Your task to perform on an android device: toggle notifications settings in the gmail app Image 0: 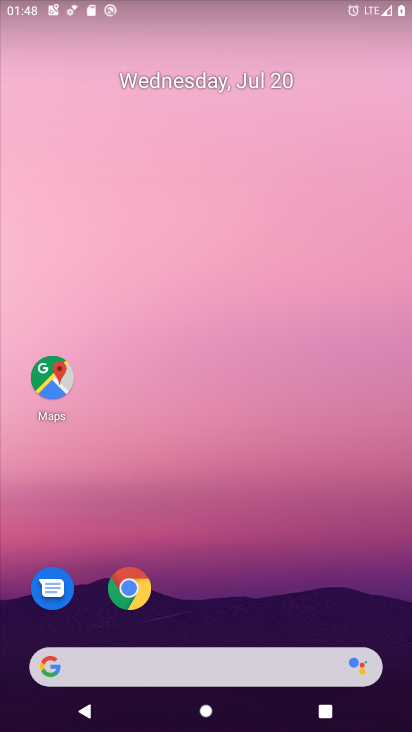
Step 0: drag from (236, 601) to (246, 148)
Your task to perform on an android device: toggle notifications settings in the gmail app Image 1: 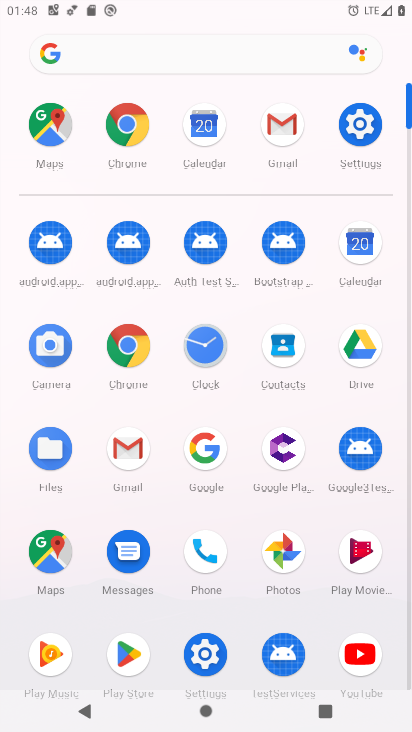
Step 1: click (293, 116)
Your task to perform on an android device: toggle notifications settings in the gmail app Image 2: 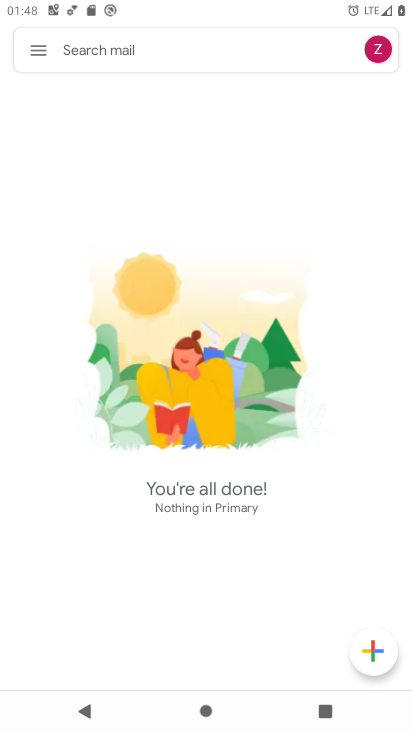
Step 2: click (30, 44)
Your task to perform on an android device: toggle notifications settings in the gmail app Image 3: 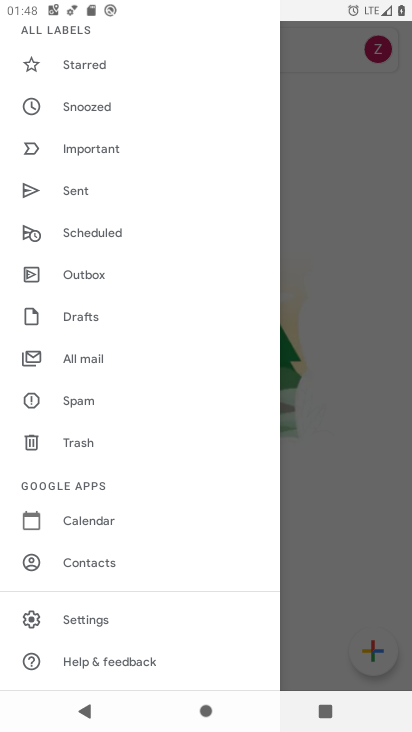
Step 3: click (114, 610)
Your task to perform on an android device: toggle notifications settings in the gmail app Image 4: 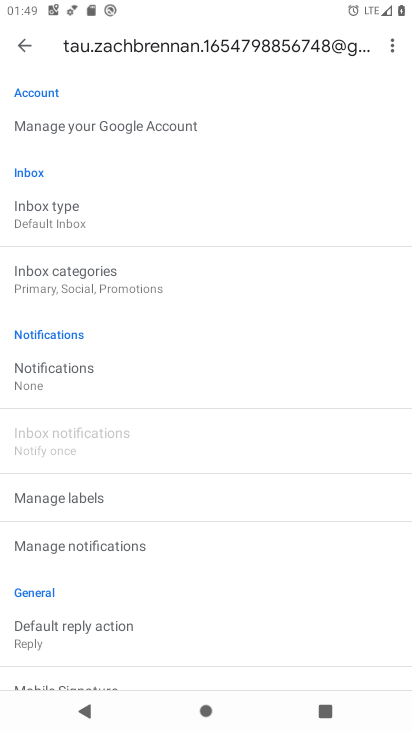
Step 4: click (101, 379)
Your task to perform on an android device: toggle notifications settings in the gmail app Image 5: 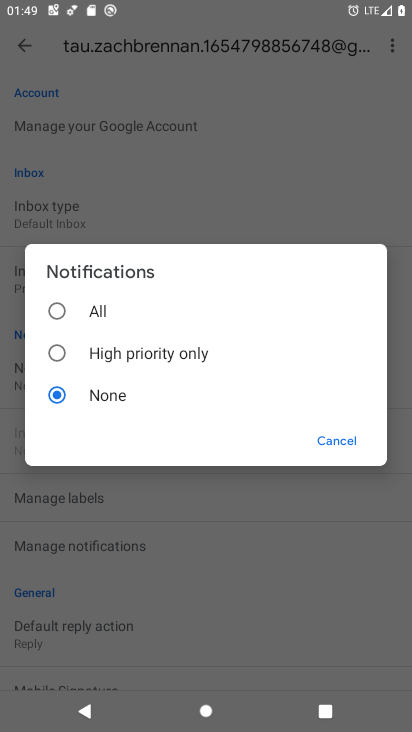
Step 5: click (102, 320)
Your task to perform on an android device: toggle notifications settings in the gmail app Image 6: 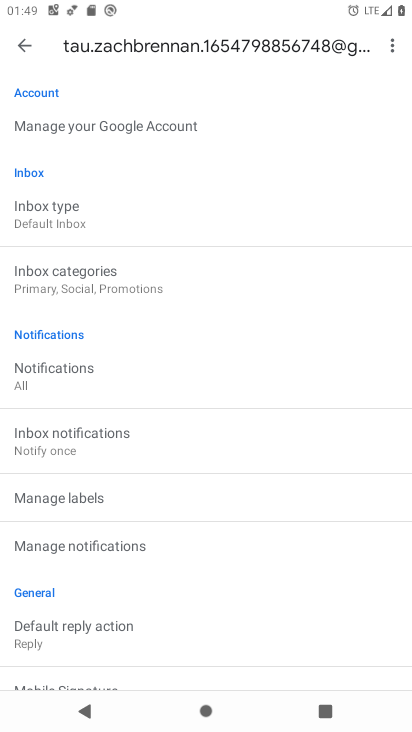
Step 6: task complete